Your task to perform on an android device: turn on sleep mode Image 0: 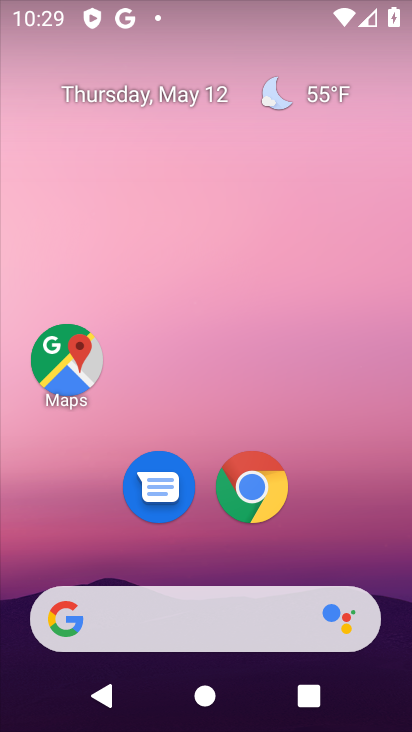
Step 0: click (217, 588)
Your task to perform on an android device: turn on sleep mode Image 1: 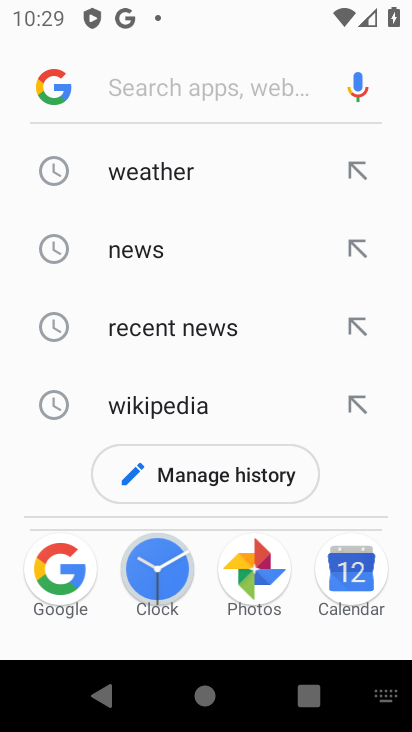
Step 1: press home button
Your task to perform on an android device: turn on sleep mode Image 2: 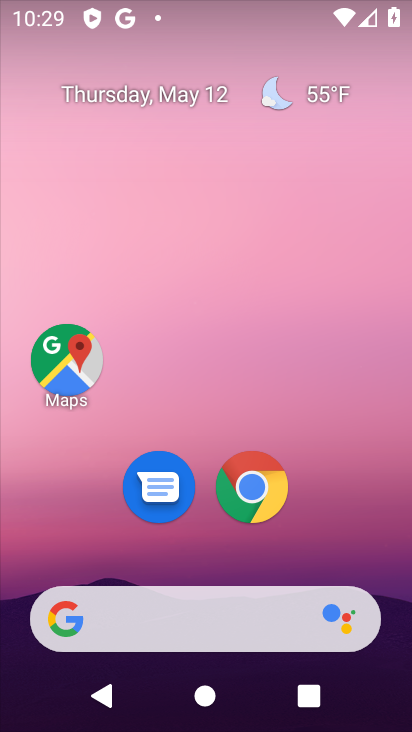
Step 2: drag from (355, 556) to (263, 7)
Your task to perform on an android device: turn on sleep mode Image 3: 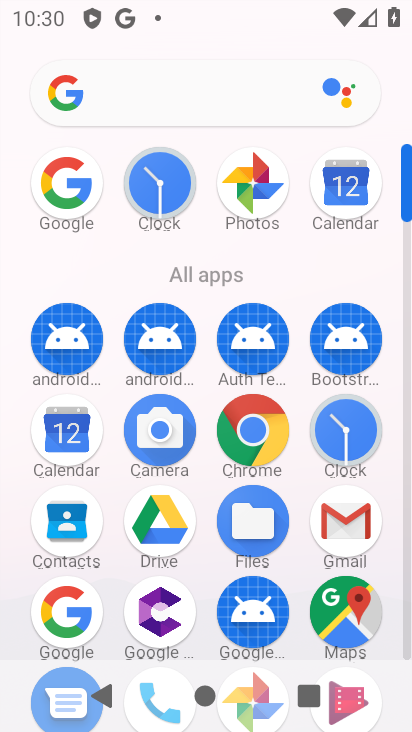
Step 3: click (406, 439)
Your task to perform on an android device: turn on sleep mode Image 4: 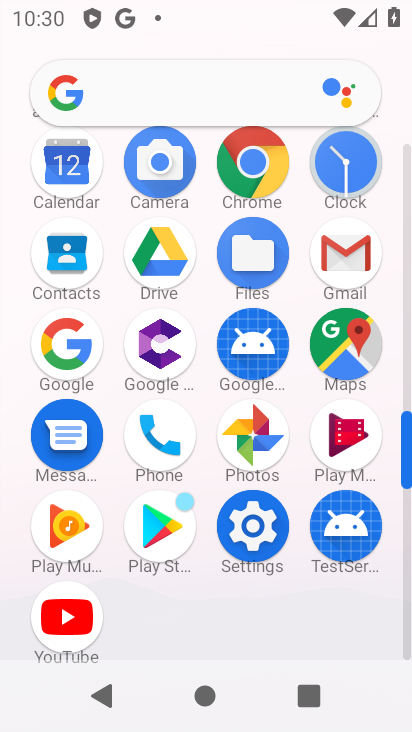
Step 4: click (256, 530)
Your task to perform on an android device: turn on sleep mode Image 5: 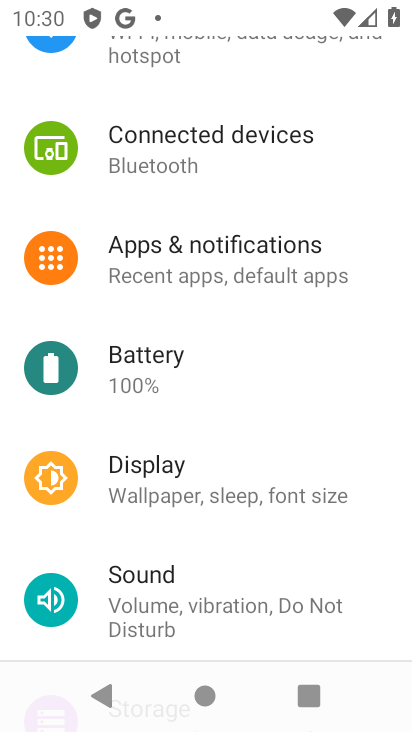
Step 5: click (162, 482)
Your task to perform on an android device: turn on sleep mode Image 6: 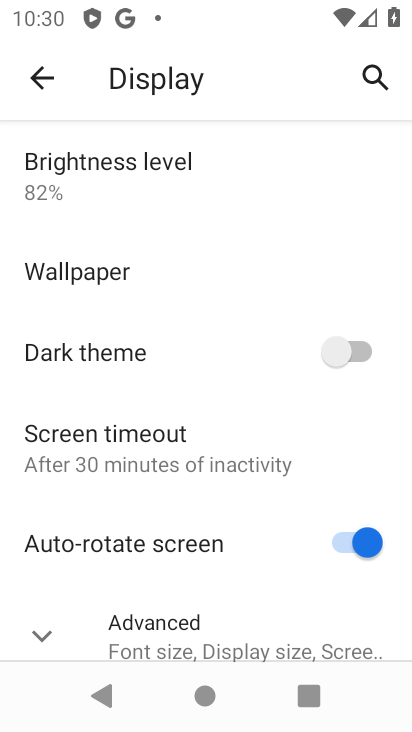
Step 6: click (45, 637)
Your task to perform on an android device: turn on sleep mode Image 7: 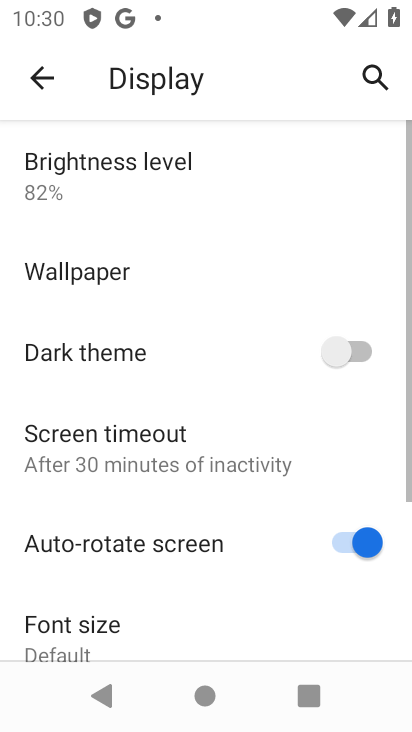
Step 7: task complete